Your task to perform on an android device: Add "razer huntsman" to the cart on walmart, then select checkout. Image 0: 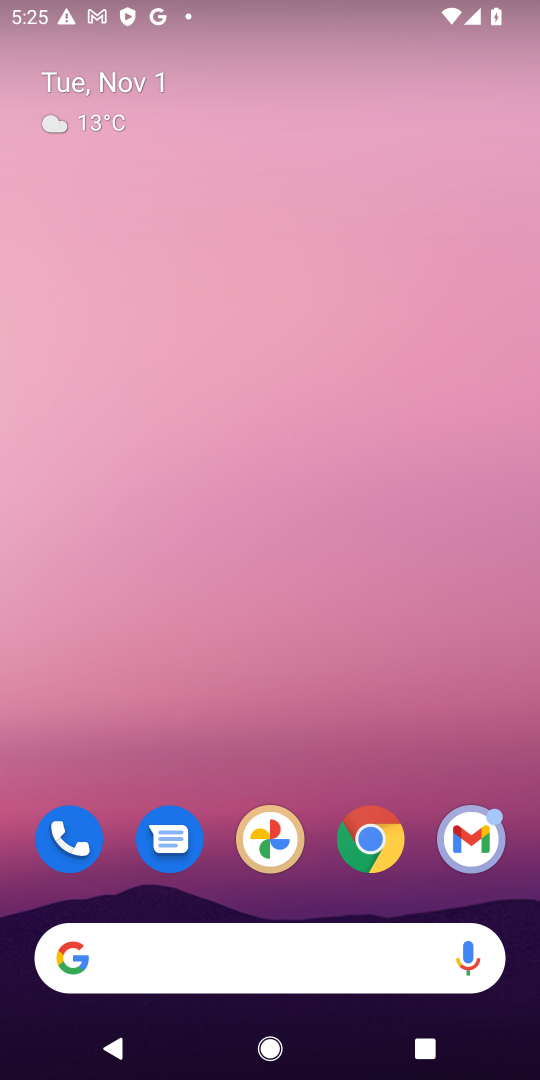
Step 0: drag from (313, 574) to (323, 241)
Your task to perform on an android device: Add "razer huntsman" to the cart on walmart, then select checkout. Image 1: 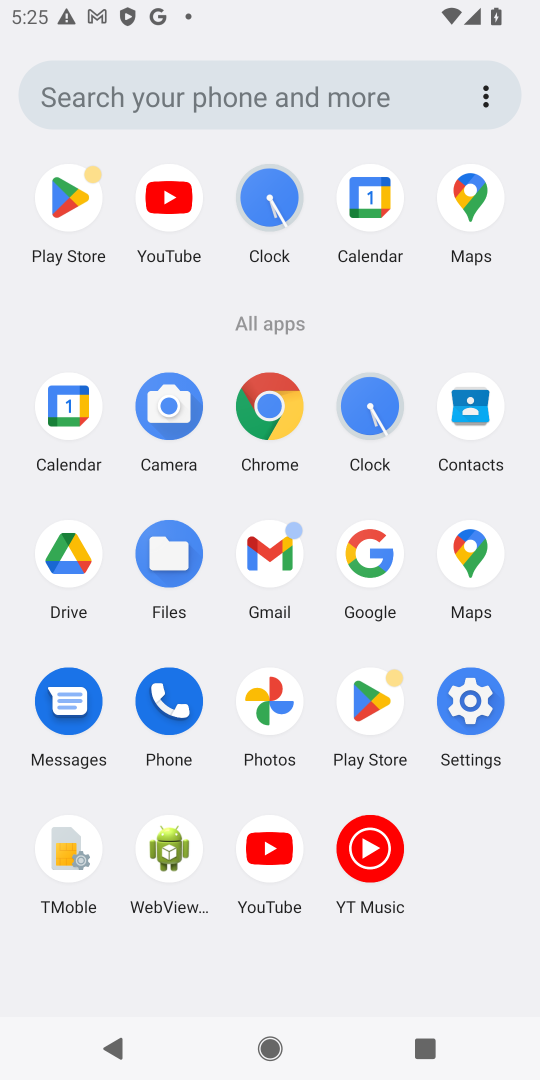
Step 1: click (274, 403)
Your task to perform on an android device: Add "razer huntsman" to the cart on walmart, then select checkout. Image 2: 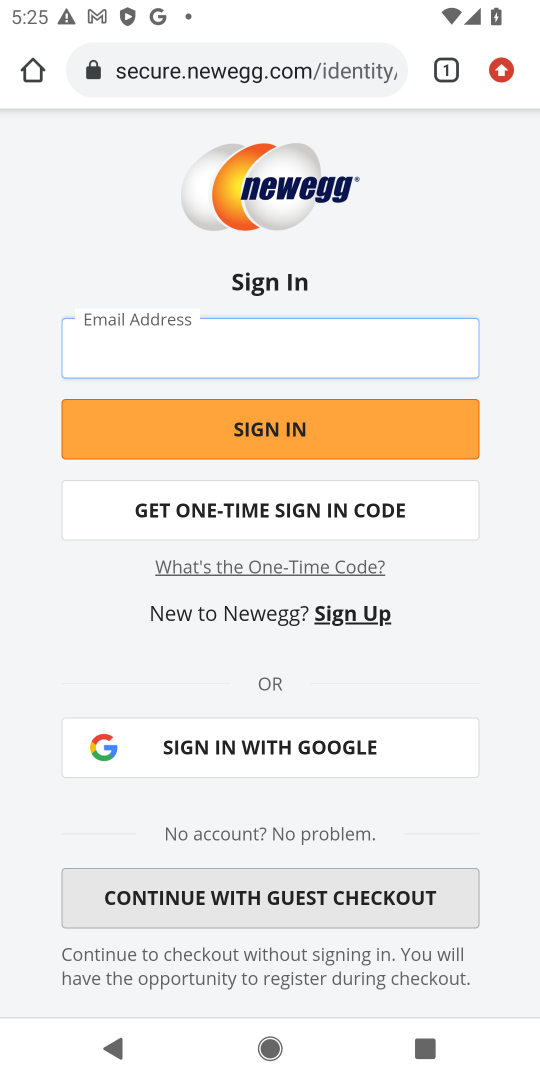
Step 2: click (288, 69)
Your task to perform on an android device: Add "razer huntsman" to the cart on walmart, then select checkout. Image 3: 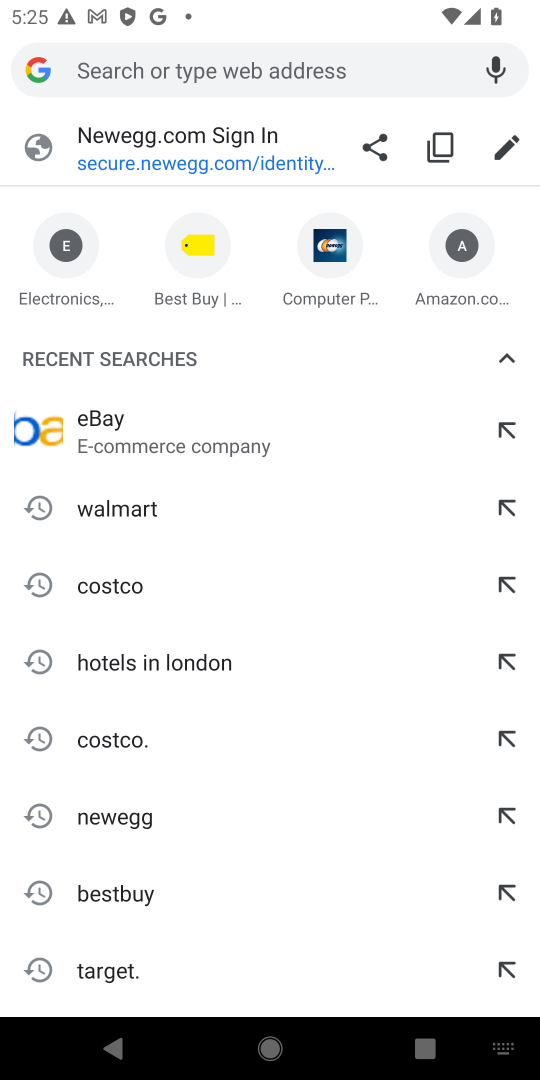
Step 3: type "walmart.com"
Your task to perform on an android device: Add "razer huntsman" to the cart on walmart, then select checkout. Image 4: 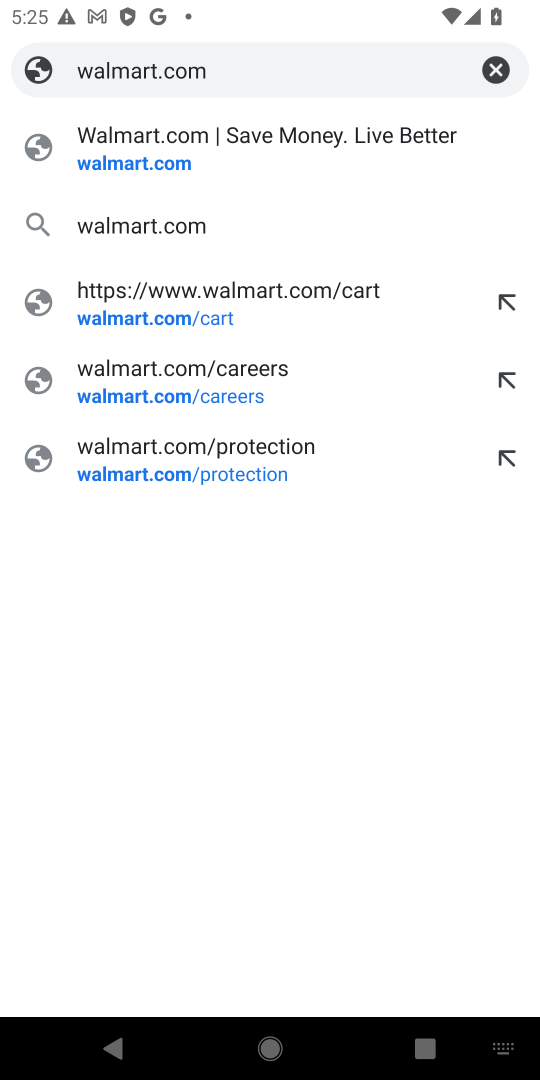
Step 4: press enter
Your task to perform on an android device: Add "razer huntsman" to the cart on walmart, then select checkout. Image 5: 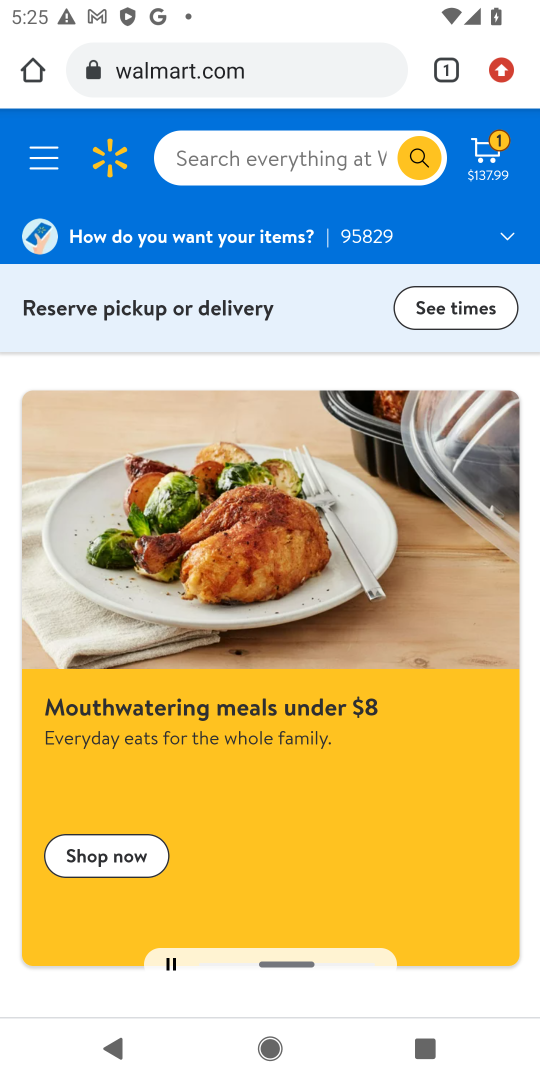
Step 5: click (295, 157)
Your task to perform on an android device: Add "razer huntsman" to the cart on walmart, then select checkout. Image 6: 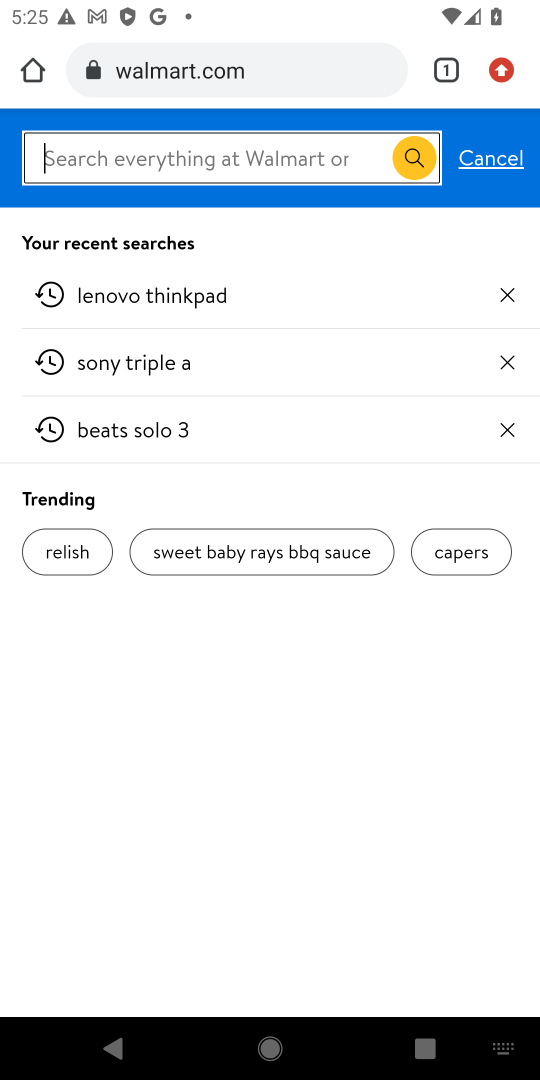
Step 6: type "razer huntsman"
Your task to perform on an android device: Add "razer huntsman" to the cart on walmart, then select checkout. Image 7: 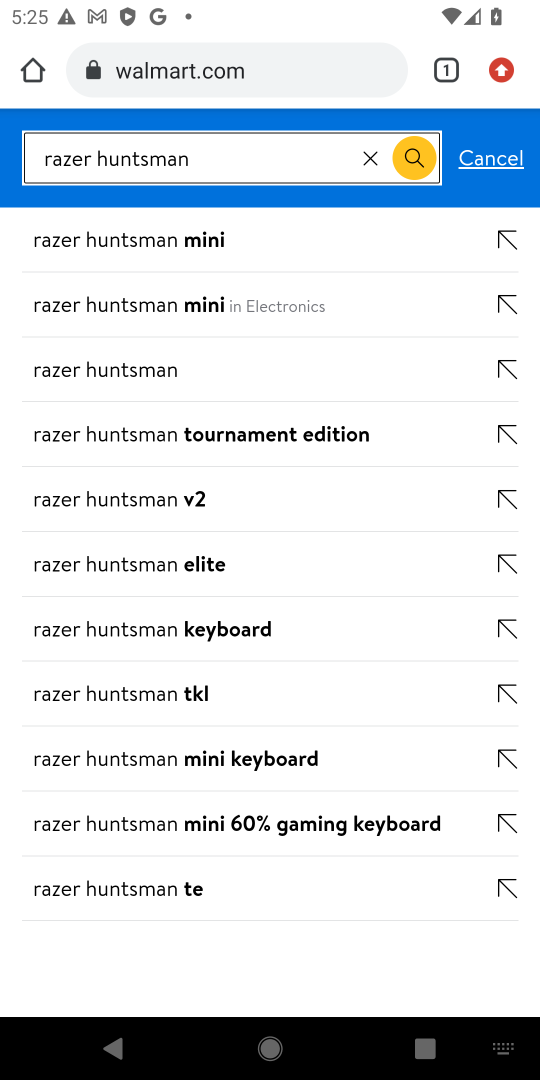
Step 7: press enter
Your task to perform on an android device: Add "razer huntsman" to the cart on walmart, then select checkout. Image 8: 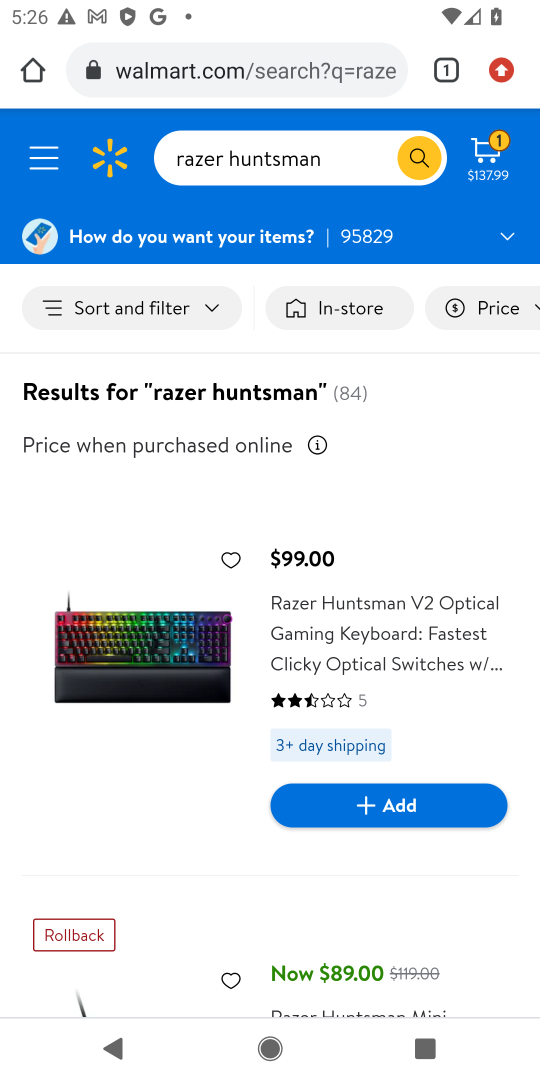
Step 8: drag from (219, 806) to (160, 703)
Your task to perform on an android device: Add "razer huntsman" to the cart on walmart, then select checkout. Image 9: 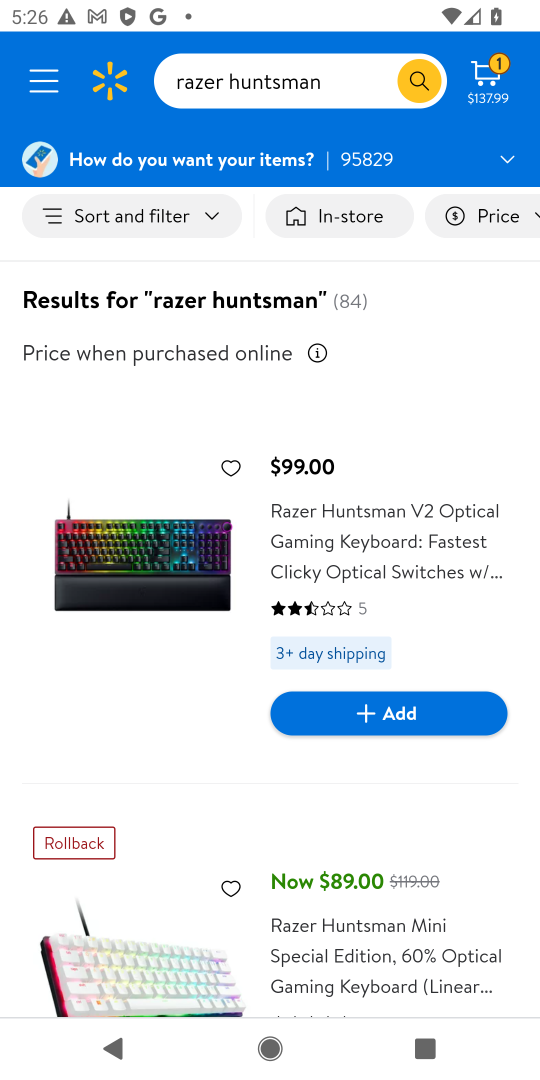
Step 9: click (424, 539)
Your task to perform on an android device: Add "razer huntsman" to the cart on walmart, then select checkout. Image 10: 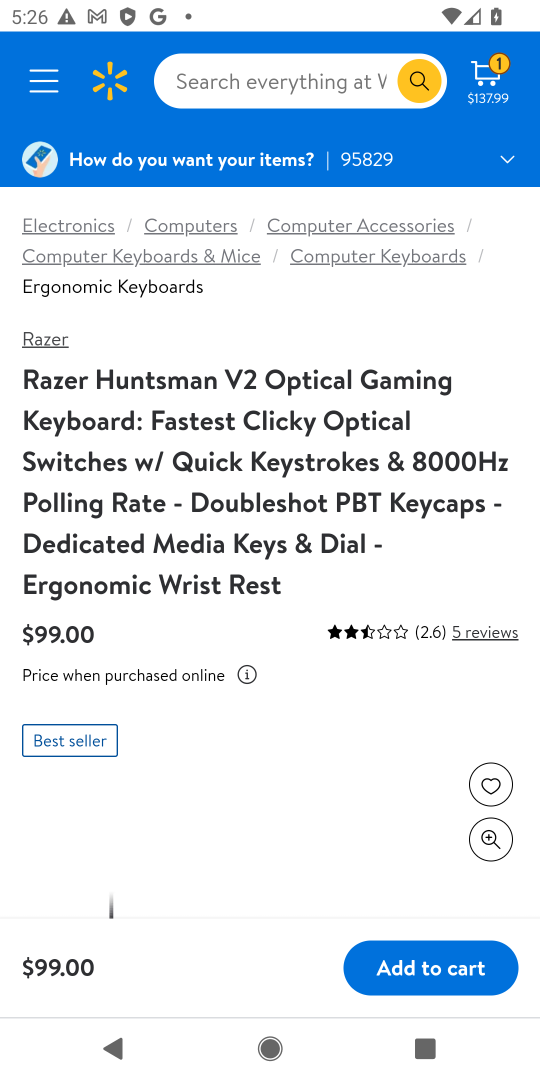
Step 10: click (473, 990)
Your task to perform on an android device: Add "razer huntsman" to the cart on walmart, then select checkout. Image 11: 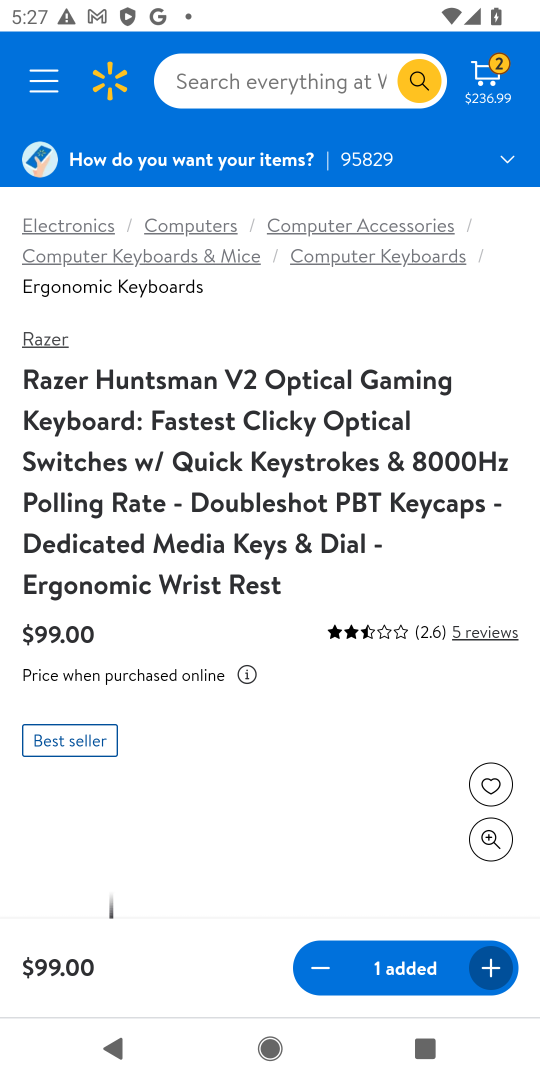
Step 11: drag from (314, 770) to (308, 573)
Your task to perform on an android device: Add "razer huntsman" to the cart on walmart, then select checkout. Image 12: 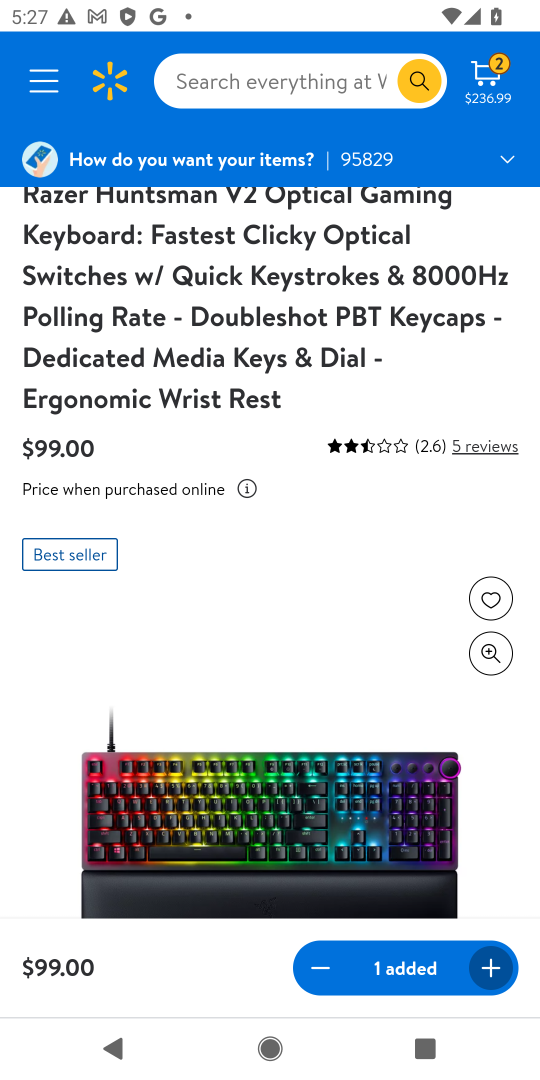
Step 12: click (491, 87)
Your task to perform on an android device: Add "razer huntsman" to the cart on walmart, then select checkout. Image 13: 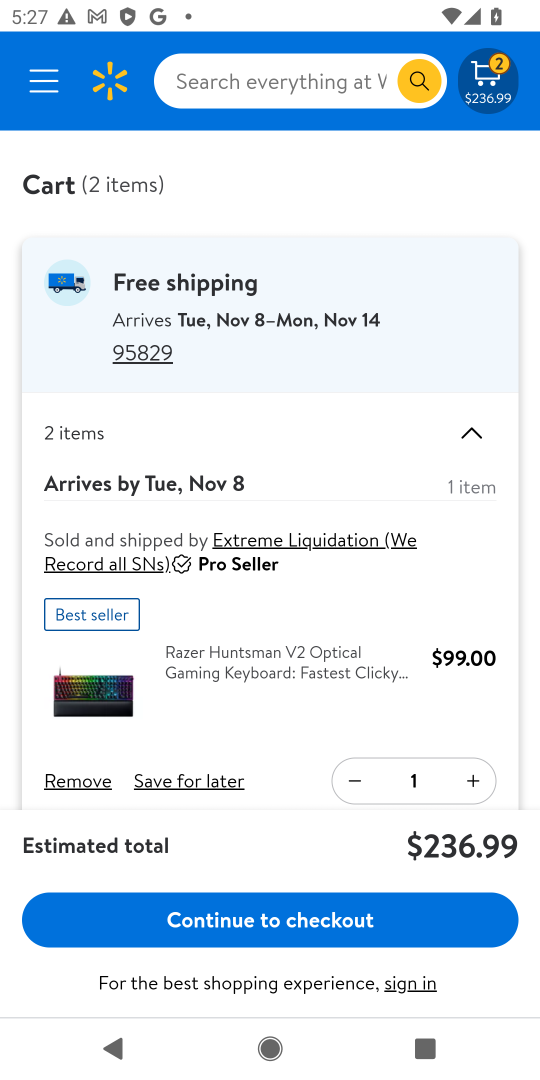
Step 13: click (300, 941)
Your task to perform on an android device: Add "razer huntsman" to the cart on walmart, then select checkout. Image 14: 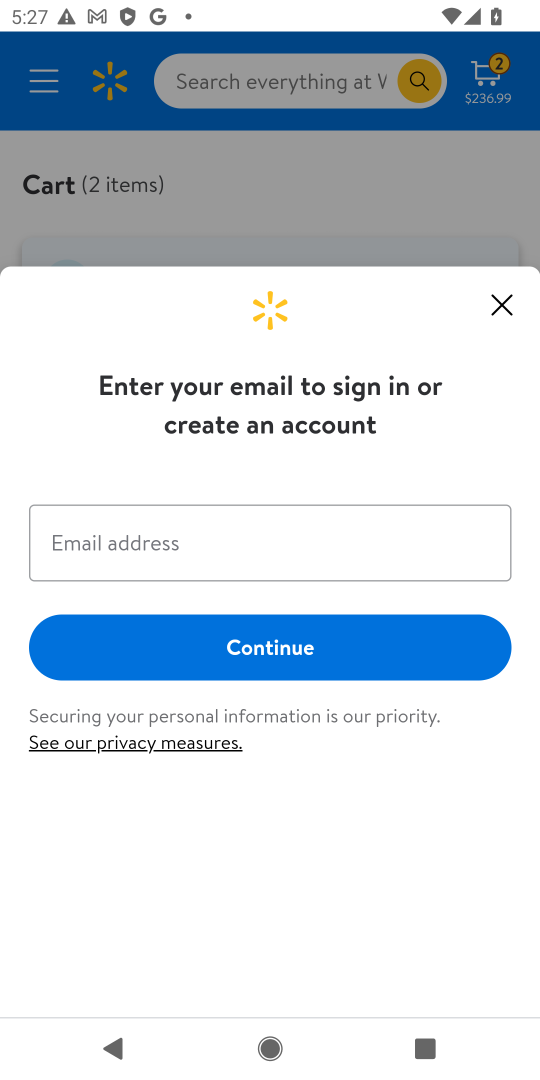
Step 14: task complete